Your task to perform on an android device: search for starred emails in the gmail app Image 0: 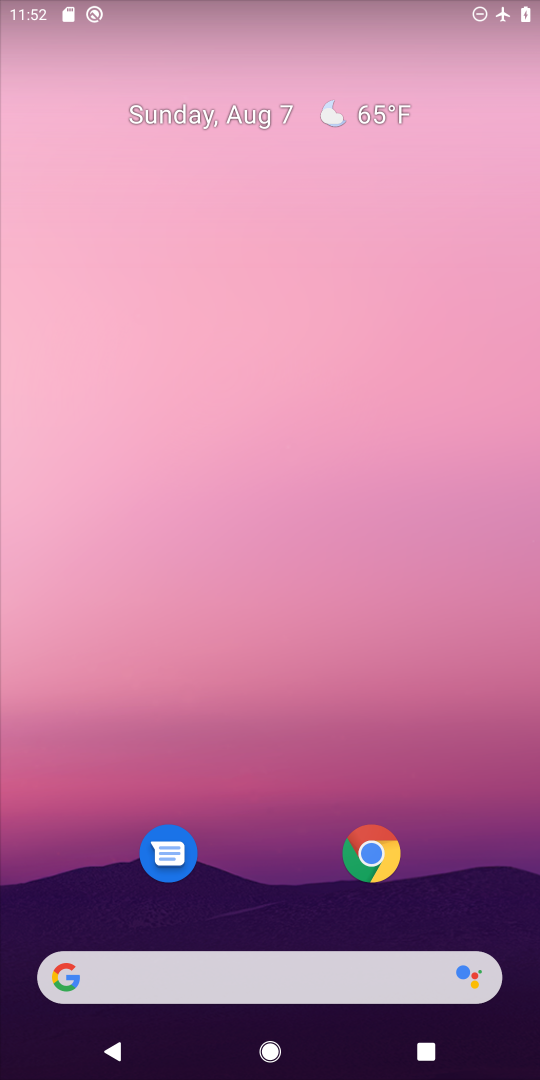
Step 0: drag from (289, 960) to (288, 184)
Your task to perform on an android device: search for starred emails in the gmail app Image 1: 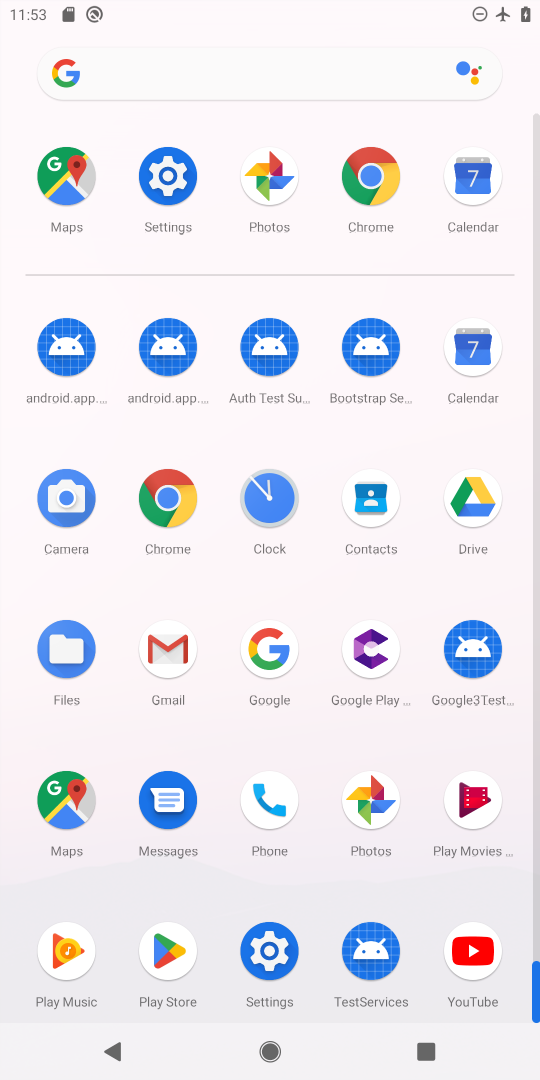
Step 1: click (158, 642)
Your task to perform on an android device: search for starred emails in the gmail app Image 2: 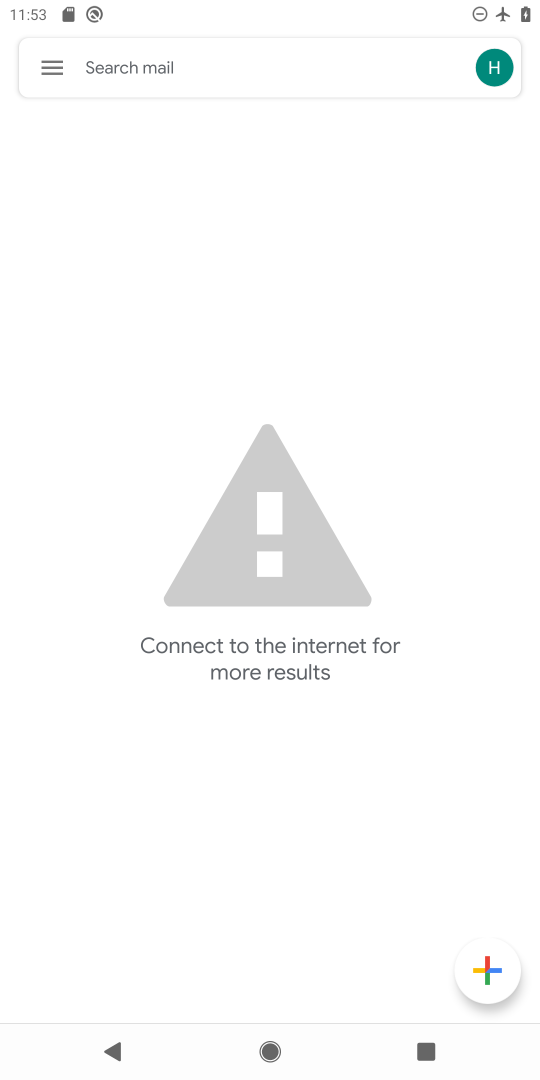
Step 2: click (50, 63)
Your task to perform on an android device: search for starred emails in the gmail app Image 3: 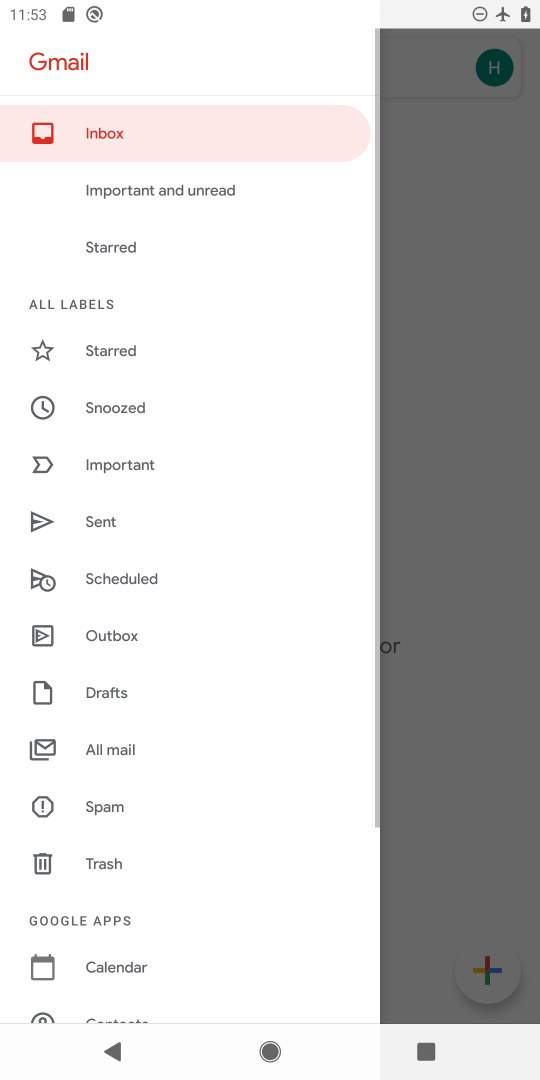
Step 3: click (116, 358)
Your task to perform on an android device: search for starred emails in the gmail app Image 4: 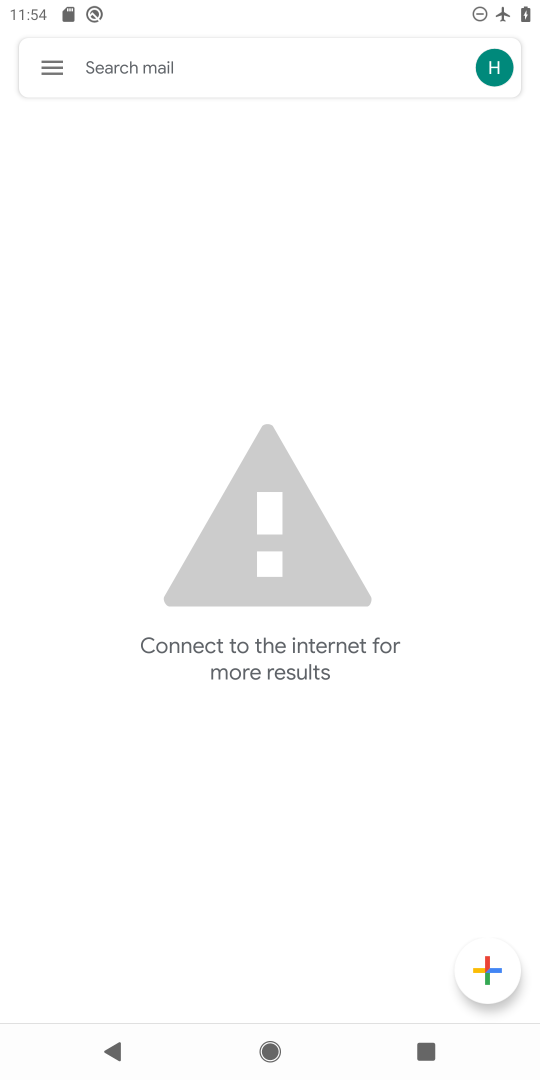
Step 4: task complete